Your task to perform on an android device: turn off wifi Image 0: 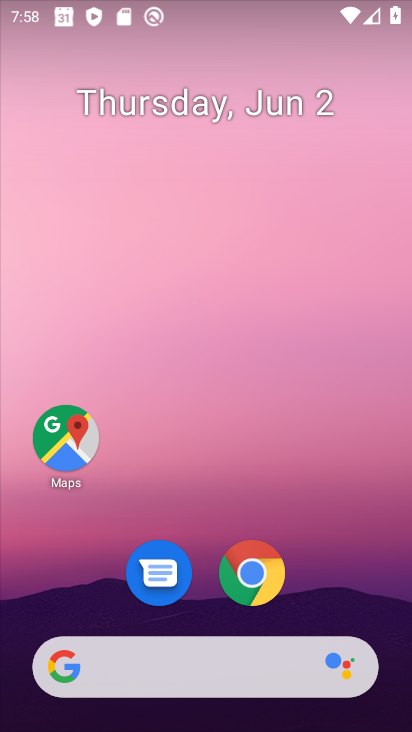
Step 0: drag from (365, 567) to (249, 73)
Your task to perform on an android device: turn off wifi Image 1: 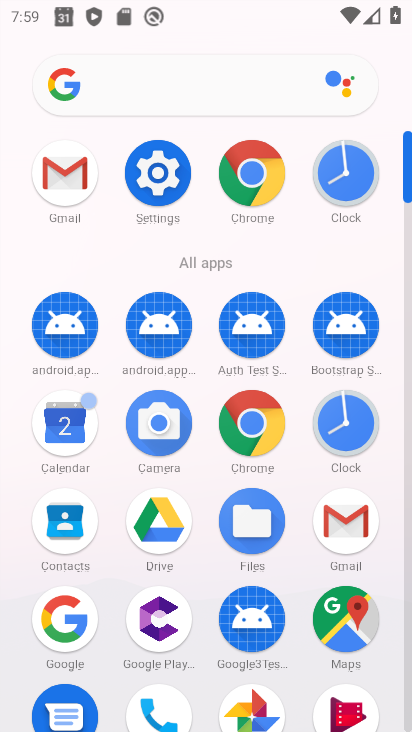
Step 1: click (167, 192)
Your task to perform on an android device: turn off wifi Image 2: 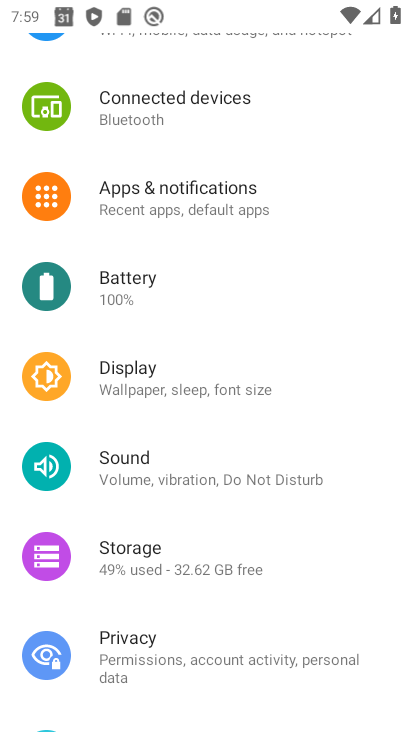
Step 2: drag from (168, 187) to (161, 613)
Your task to perform on an android device: turn off wifi Image 3: 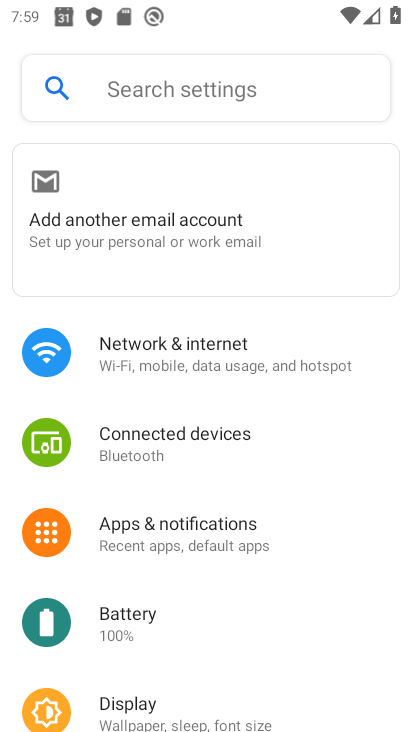
Step 3: click (193, 325)
Your task to perform on an android device: turn off wifi Image 4: 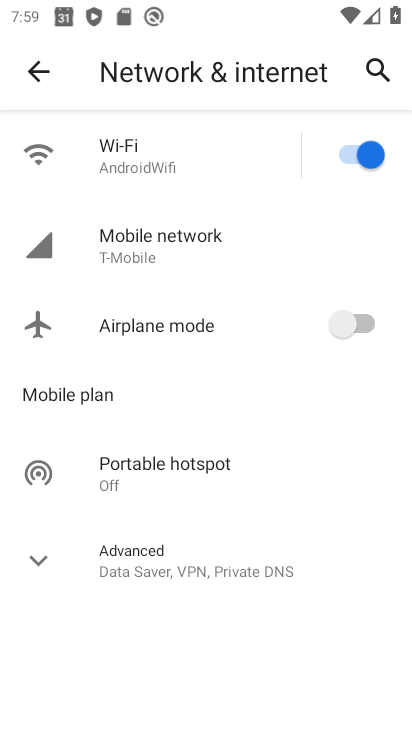
Step 4: click (363, 154)
Your task to perform on an android device: turn off wifi Image 5: 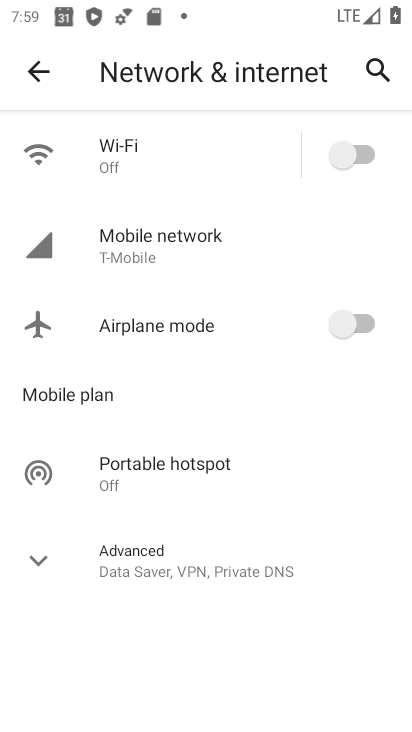
Step 5: task complete